Your task to perform on an android device: turn off improve location accuracy Image 0: 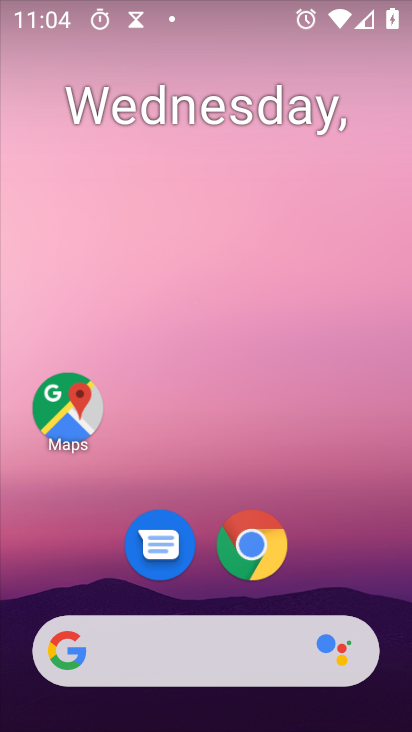
Step 0: press home button
Your task to perform on an android device: turn off improve location accuracy Image 1: 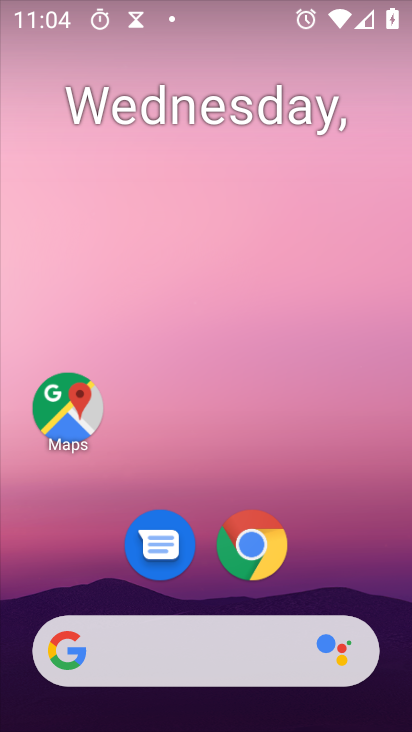
Step 1: drag from (132, 646) to (310, 173)
Your task to perform on an android device: turn off improve location accuracy Image 2: 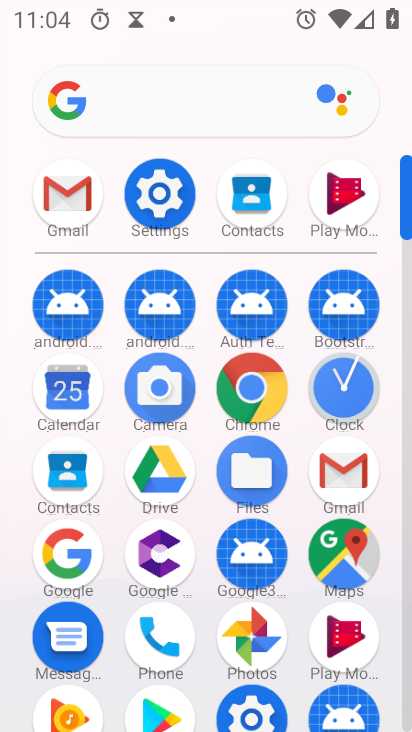
Step 2: click (171, 205)
Your task to perform on an android device: turn off improve location accuracy Image 3: 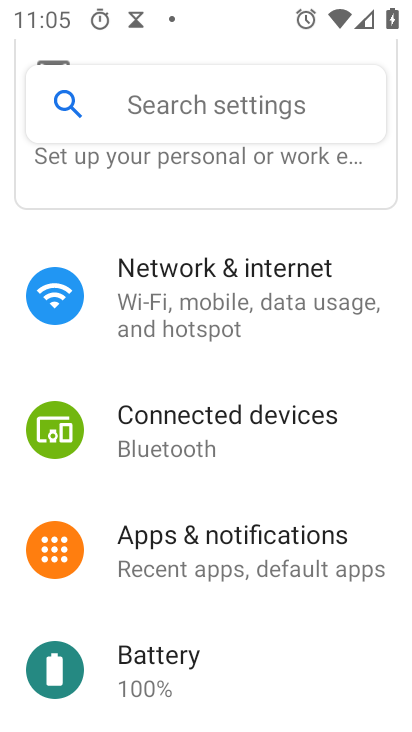
Step 3: drag from (211, 641) to (366, 206)
Your task to perform on an android device: turn off improve location accuracy Image 4: 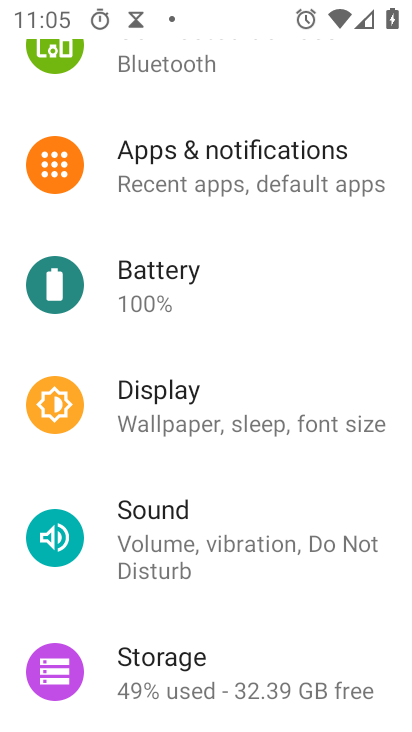
Step 4: drag from (220, 621) to (340, 242)
Your task to perform on an android device: turn off improve location accuracy Image 5: 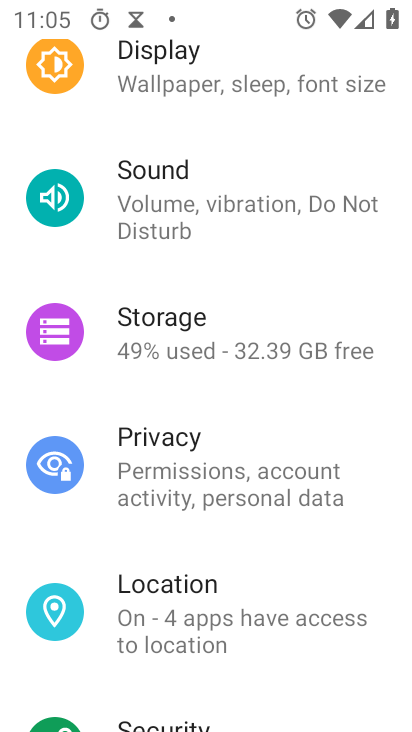
Step 5: click (181, 601)
Your task to perform on an android device: turn off improve location accuracy Image 6: 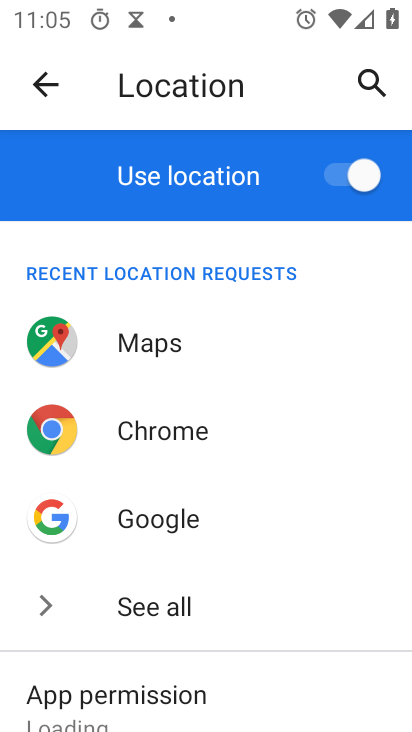
Step 6: drag from (223, 627) to (352, 183)
Your task to perform on an android device: turn off improve location accuracy Image 7: 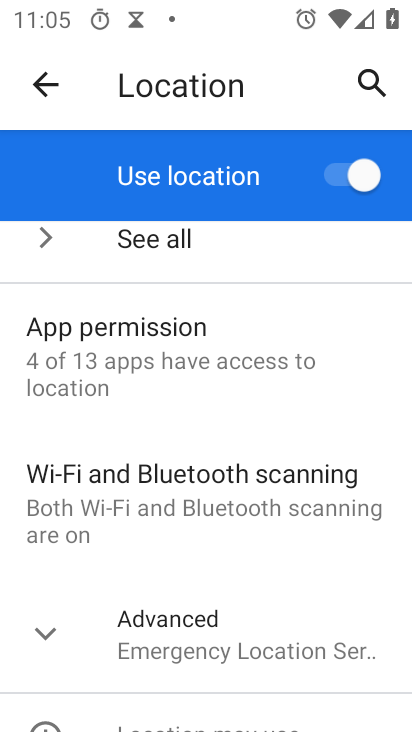
Step 7: click (142, 645)
Your task to perform on an android device: turn off improve location accuracy Image 8: 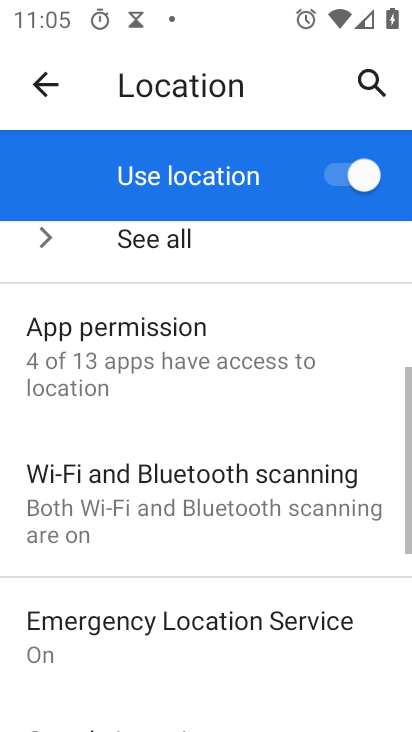
Step 8: drag from (143, 644) to (322, 168)
Your task to perform on an android device: turn off improve location accuracy Image 9: 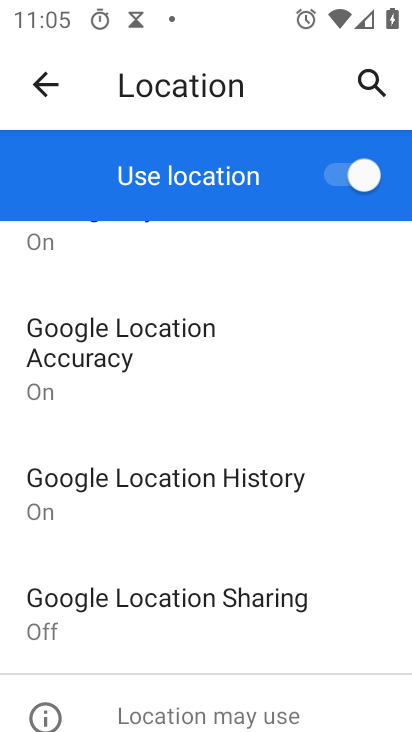
Step 9: click (128, 338)
Your task to perform on an android device: turn off improve location accuracy Image 10: 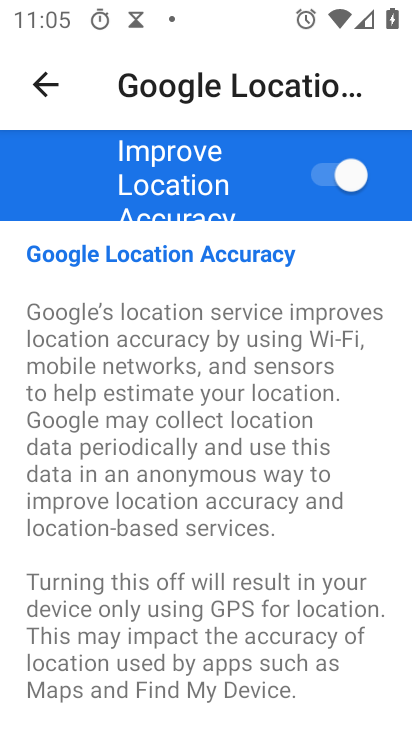
Step 10: click (324, 180)
Your task to perform on an android device: turn off improve location accuracy Image 11: 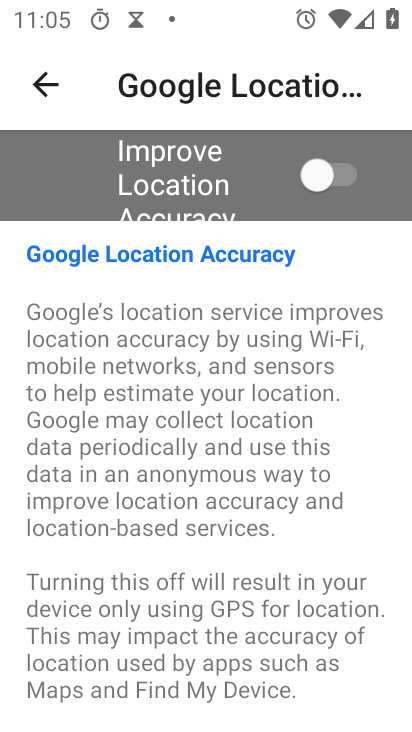
Step 11: task complete